Your task to perform on an android device: refresh tabs in the chrome app Image 0: 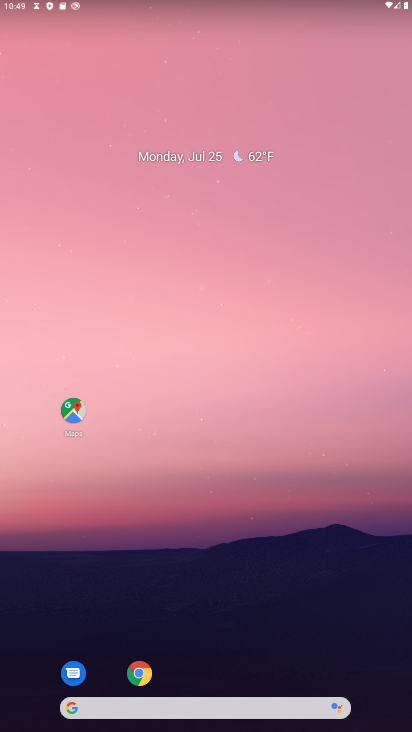
Step 0: press home button
Your task to perform on an android device: refresh tabs in the chrome app Image 1: 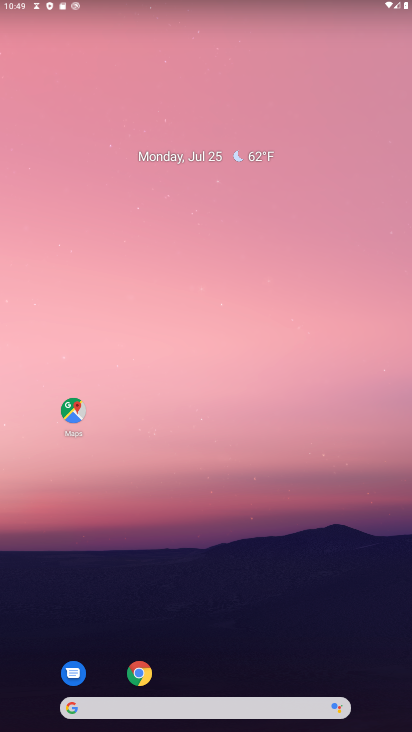
Step 1: click (135, 667)
Your task to perform on an android device: refresh tabs in the chrome app Image 2: 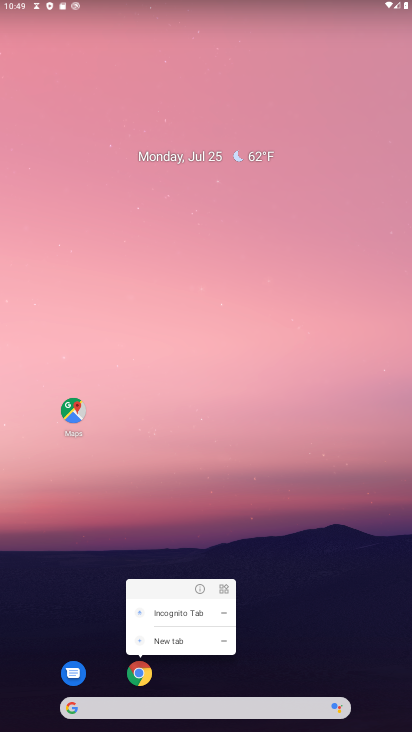
Step 2: click (136, 677)
Your task to perform on an android device: refresh tabs in the chrome app Image 3: 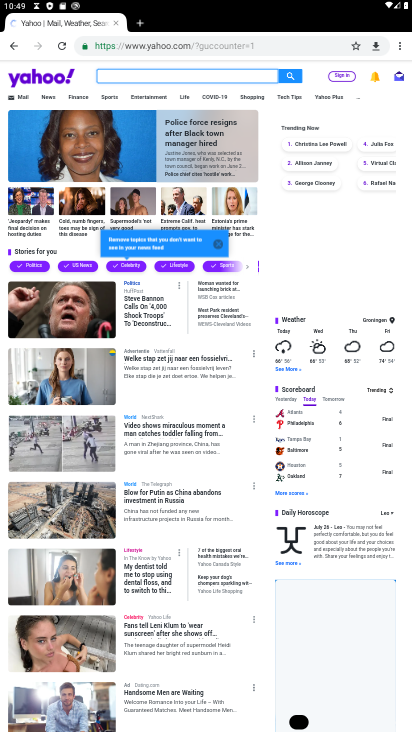
Step 3: drag from (403, 49) to (62, 42)
Your task to perform on an android device: refresh tabs in the chrome app Image 4: 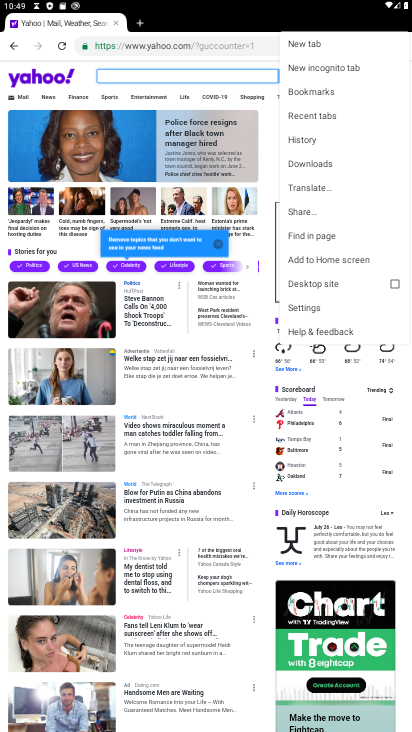
Step 4: click (62, 42)
Your task to perform on an android device: refresh tabs in the chrome app Image 5: 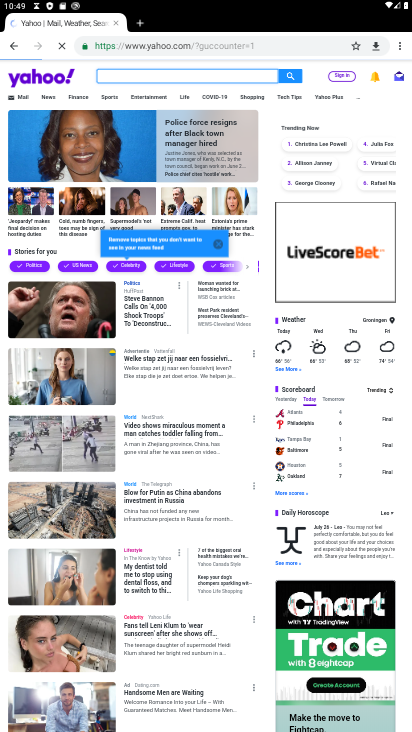
Step 5: click (62, 42)
Your task to perform on an android device: refresh tabs in the chrome app Image 6: 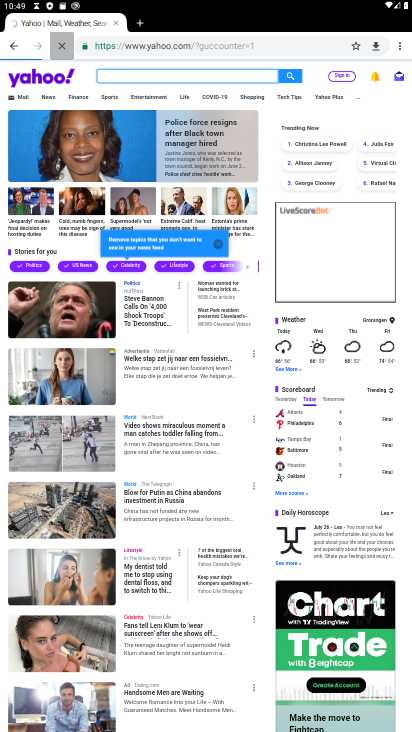
Step 6: click (62, 42)
Your task to perform on an android device: refresh tabs in the chrome app Image 7: 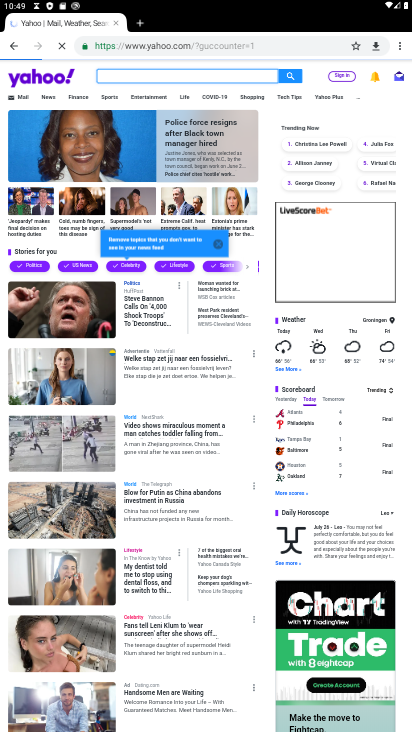
Step 7: click (62, 42)
Your task to perform on an android device: refresh tabs in the chrome app Image 8: 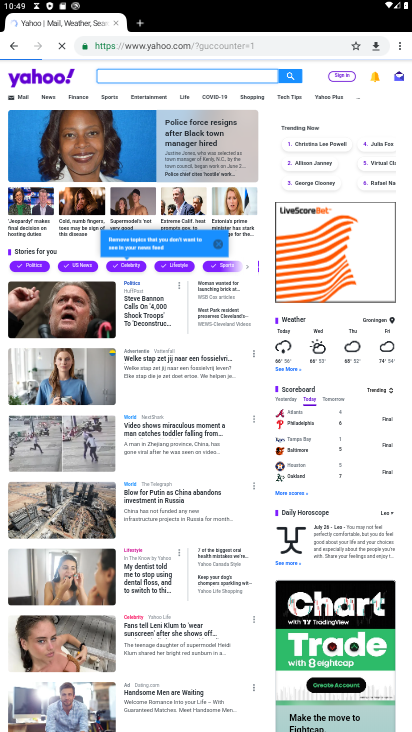
Step 8: click (62, 42)
Your task to perform on an android device: refresh tabs in the chrome app Image 9: 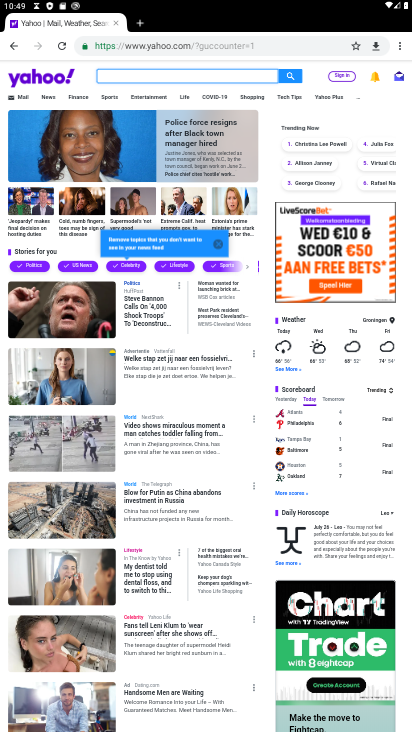
Step 9: task complete